Your task to perform on an android device: Is it going to rain tomorrow? Image 0: 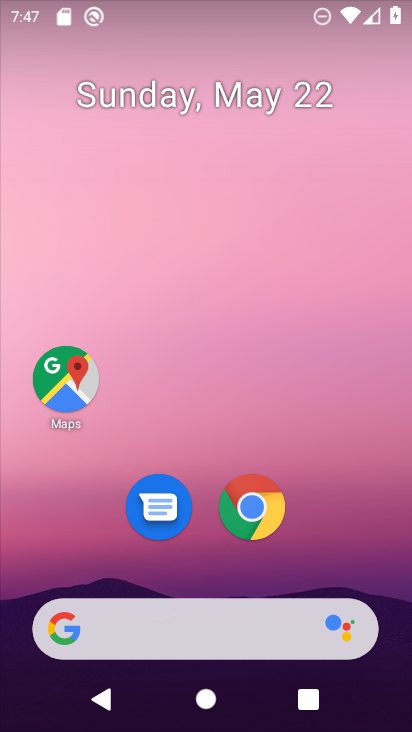
Step 0: click (193, 638)
Your task to perform on an android device: Is it going to rain tomorrow? Image 1: 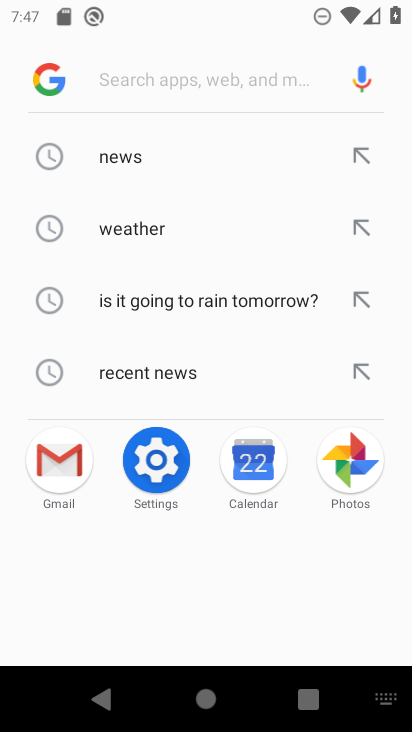
Step 1: type "Is it going to rain tomorrow?"
Your task to perform on an android device: Is it going to rain tomorrow? Image 2: 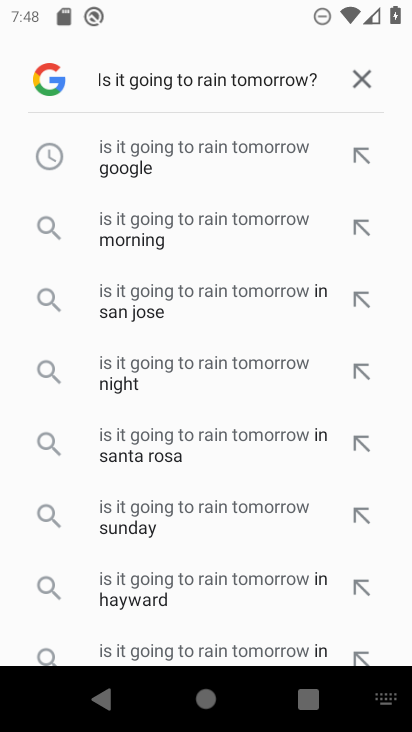
Step 2: click (121, 157)
Your task to perform on an android device: Is it going to rain tomorrow? Image 3: 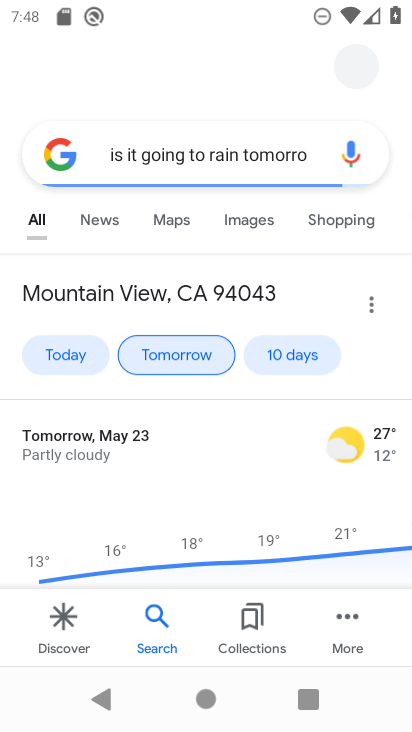
Step 3: task complete